Your task to perform on an android device: open app "Roku - Official Remote Control" (install if not already installed) Image 0: 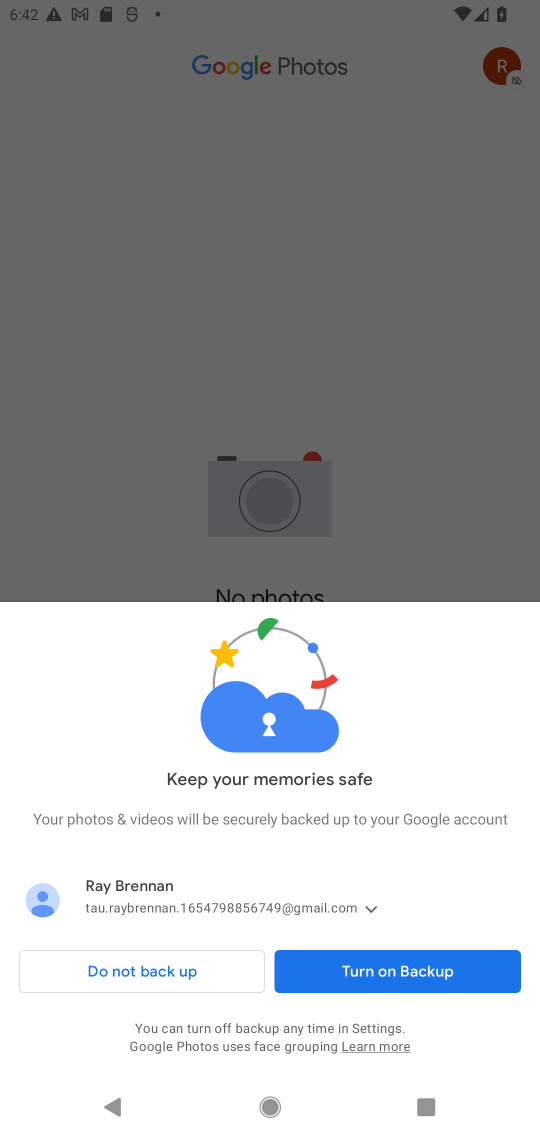
Step 0: press home button
Your task to perform on an android device: open app "Roku - Official Remote Control" (install if not already installed) Image 1: 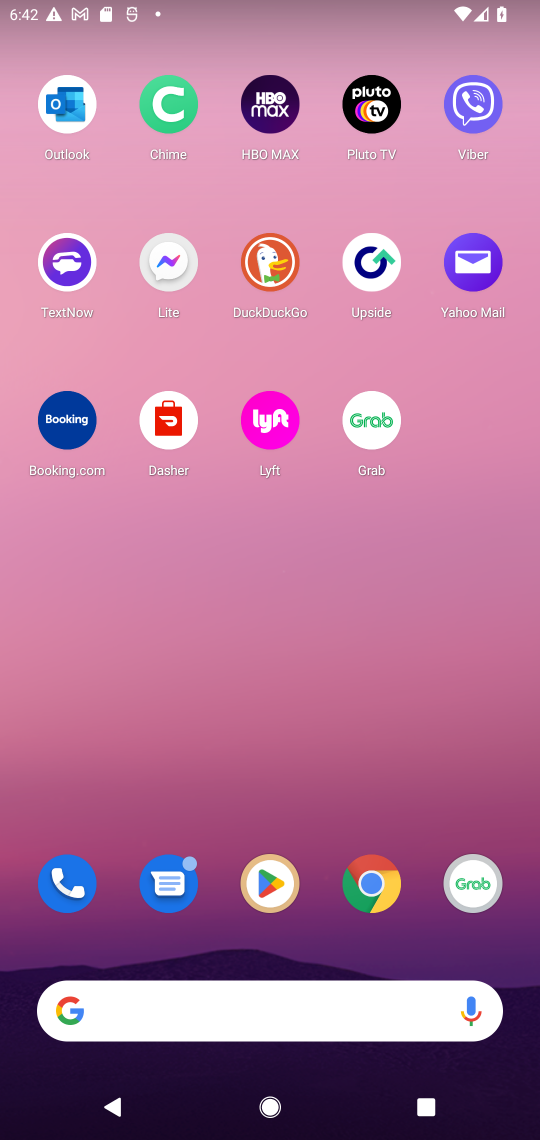
Step 1: click (281, 871)
Your task to perform on an android device: open app "Roku - Official Remote Control" (install if not already installed) Image 2: 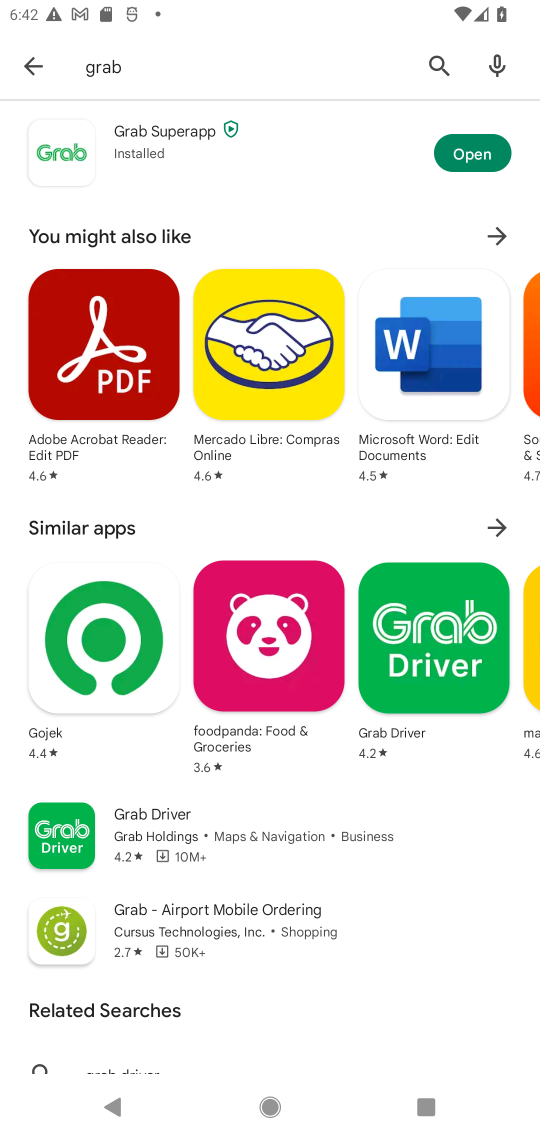
Step 2: click (417, 59)
Your task to perform on an android device: open app "Roku - Official Remote Control" (install if not already installed) Image 3: 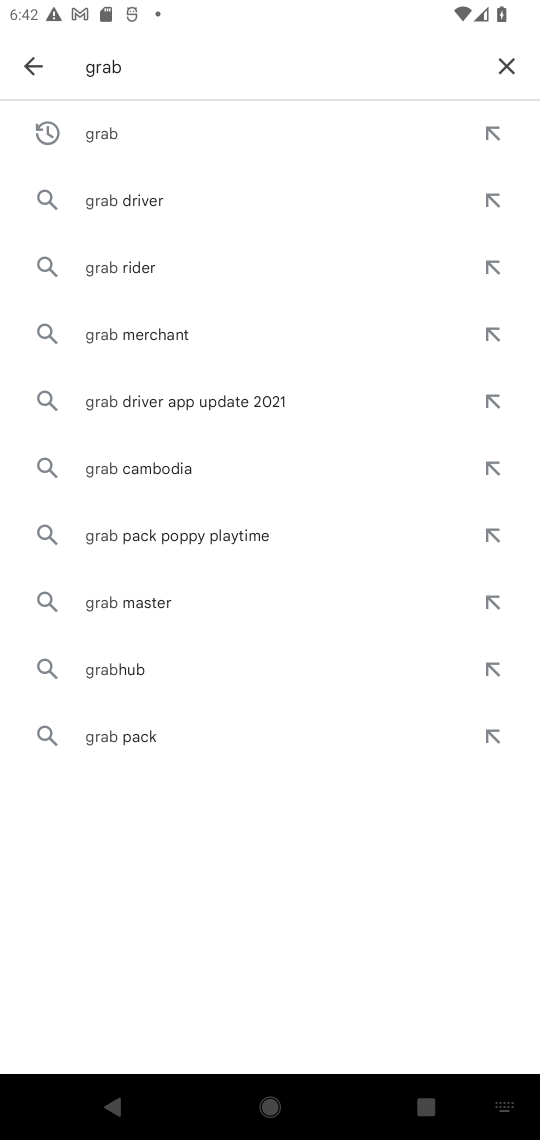
Step 3: click (502, 76)
Your task to perform on an android device: open app "Roku - Official Remote Control" (install if not already installed) Image 4: 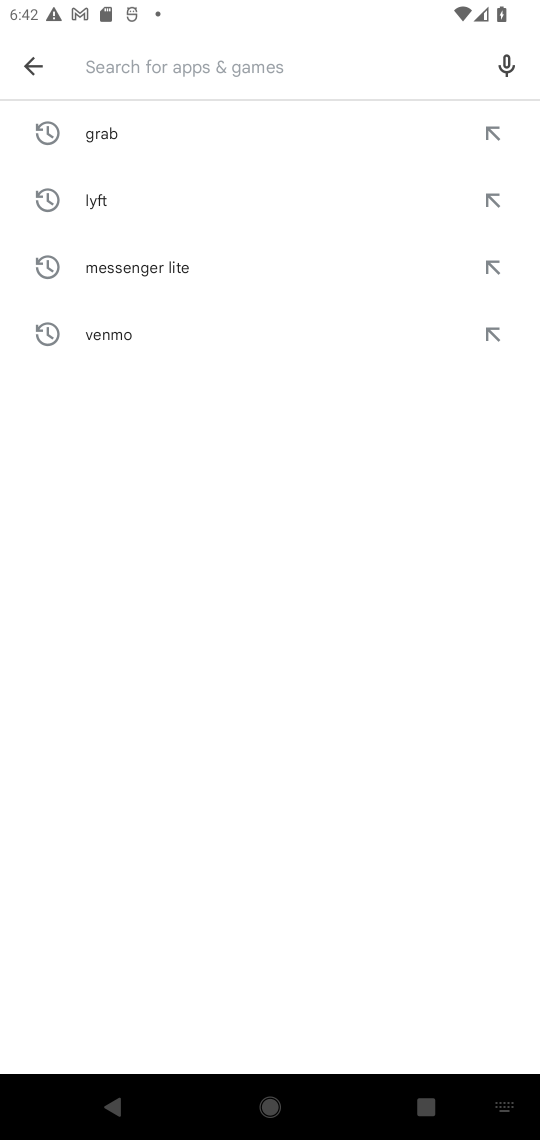
Step 4: type "Roku - Official Remote Control"
Your task to perform on an android device: open app "Roku - Official Remote Control" (install if not already installed) Image 5: 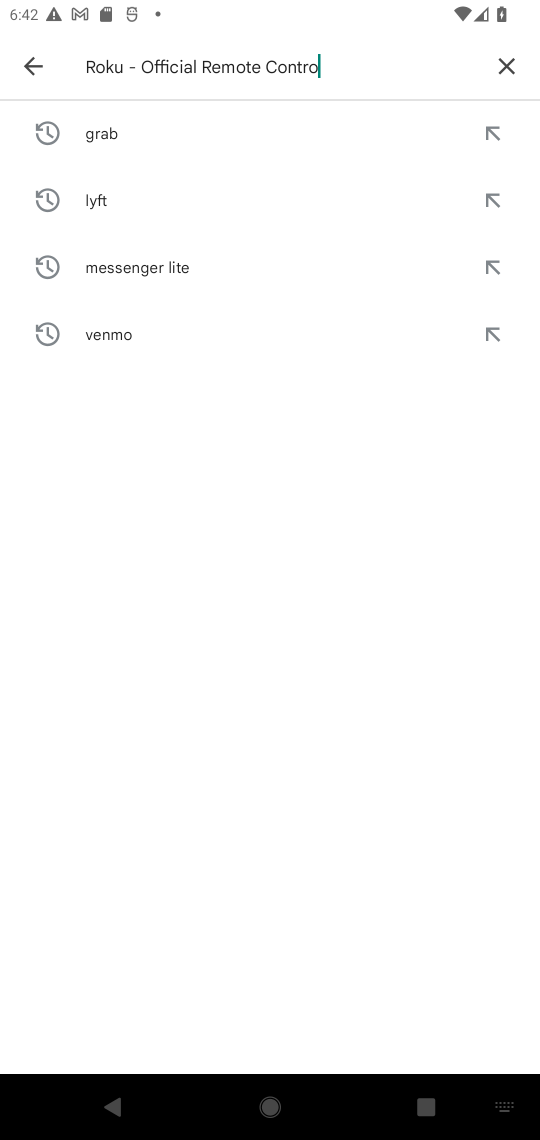
Step 5: type ""
Your task to perform on an android device: open app "Roku - Official Remote Control" (install if not already installed) Image 6: 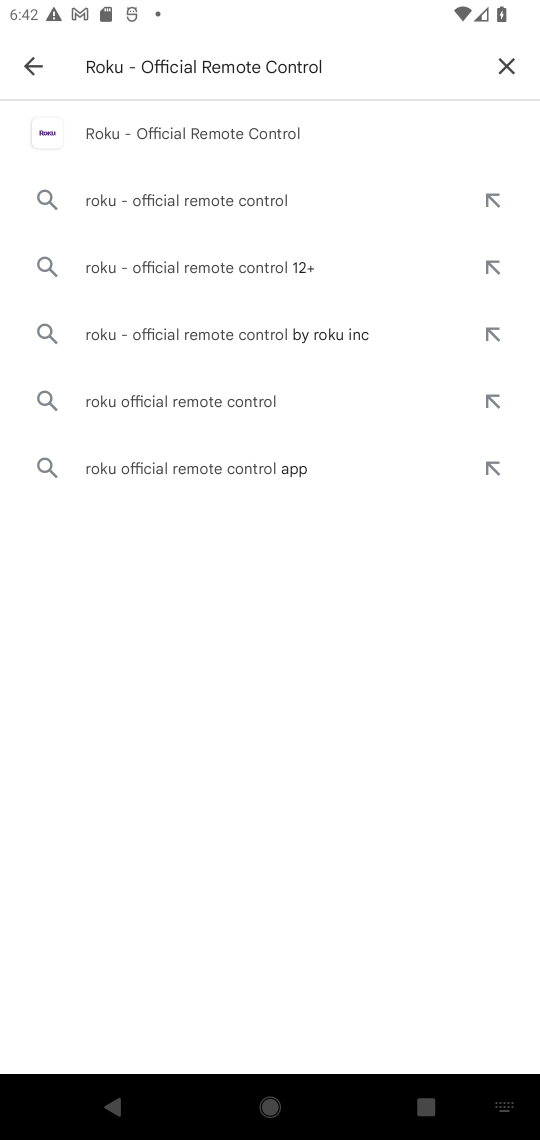
Step 6: click (160, 137)
Your task to perform on an android device: open app "Roku - Official Remote Control" (install if not already installed) Image 7: 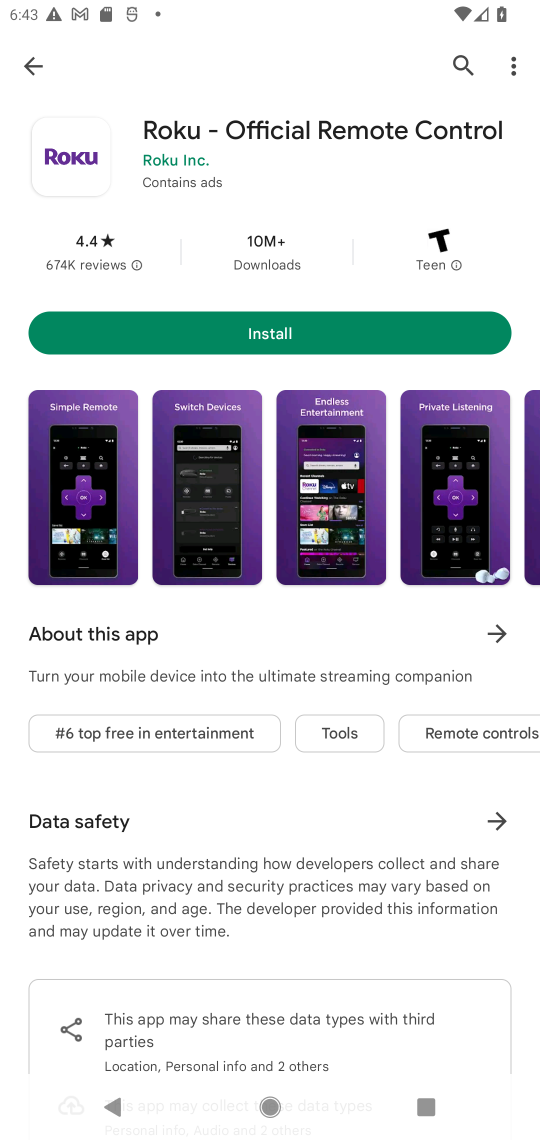
Step 7: click (285, 336)
Your task to perform on an android device: open app "Roku - Official Remote Control" (install if not already installed) Image 8: 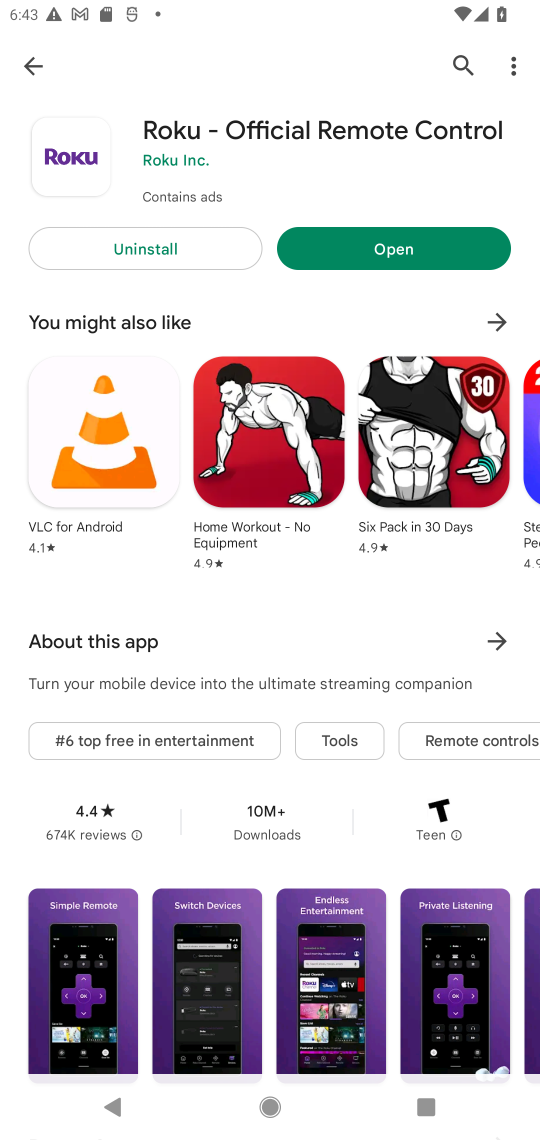
Step 8: click (422, 245)
Your task to perform on an android device: open app "Roku - Official Remote Control" (install if not already installed) Image 9: 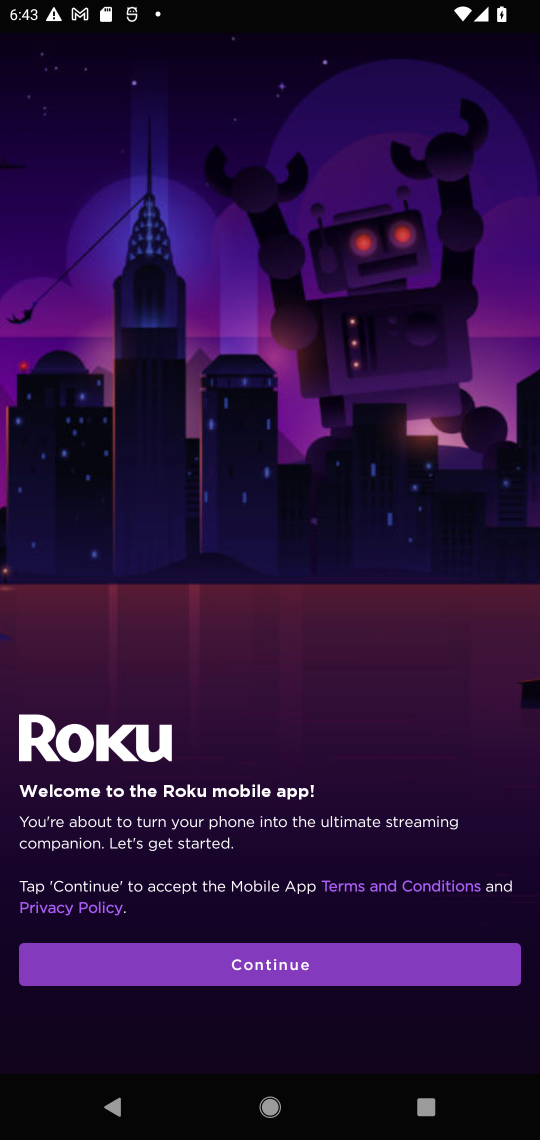
Step 9: task complete